Your task to perform on an android device: toggle javascript in the chrome app Image 0: 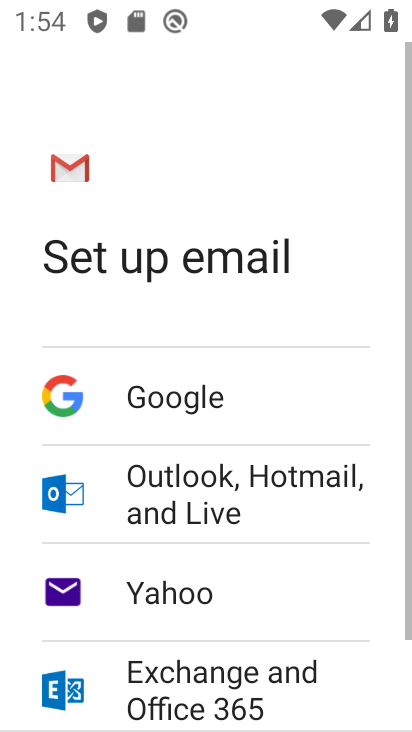
Step 0: press back button
Your task to perform on an android device: toggle javascript in the chrome app Image 1: 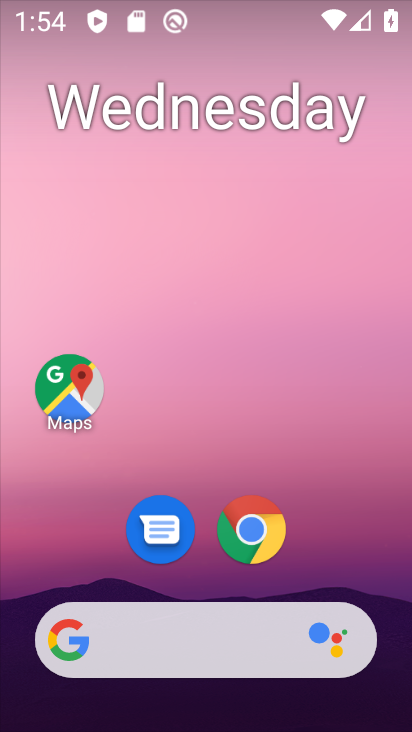
Step 1: click (253, 537)
Your task to perform on an android device: toggle javascript in the chrome app Image 2: 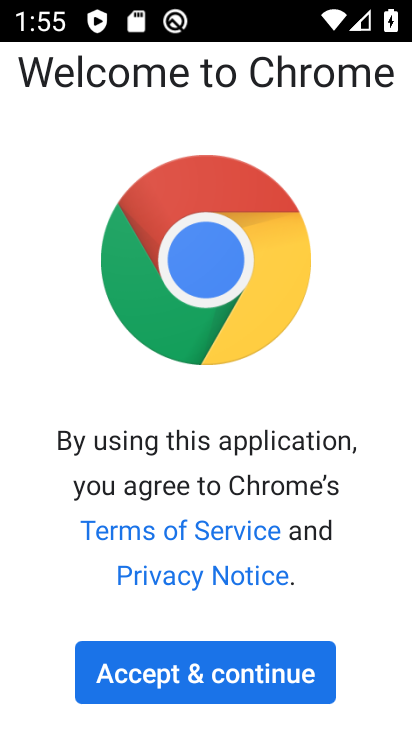
Step 2: click (270, 670)
Your task to perform on an android device: toggle javascript in the chrome app Image 3: 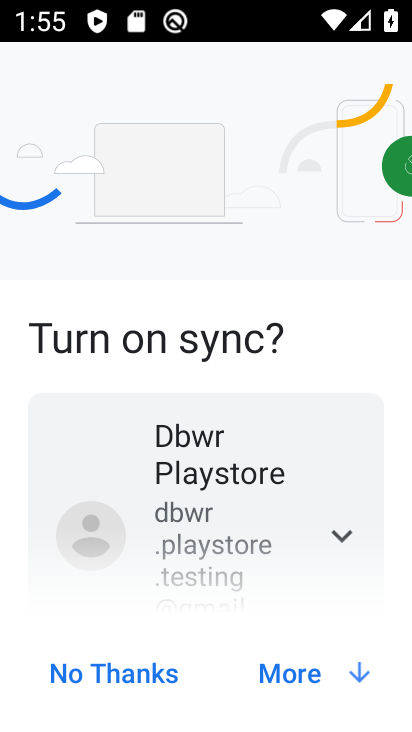
Step 3: click (321, 662)
Your task to perform on an android device: toggle javascript in the chrome app Image 4: 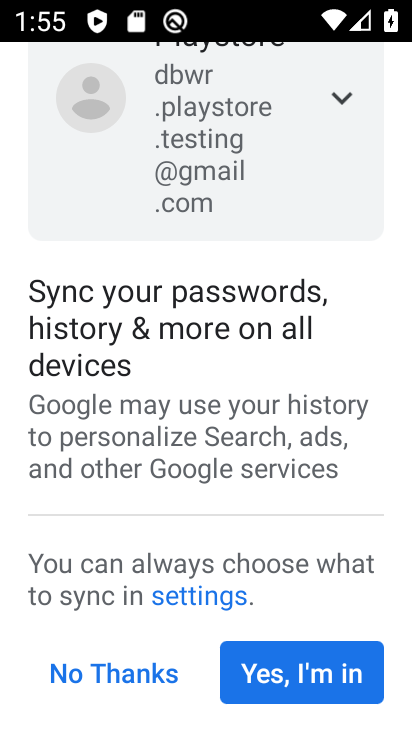
Step 4: click (301, 678)
Your task to perform on an android device: toggle javascript in the chrome app Image 5: 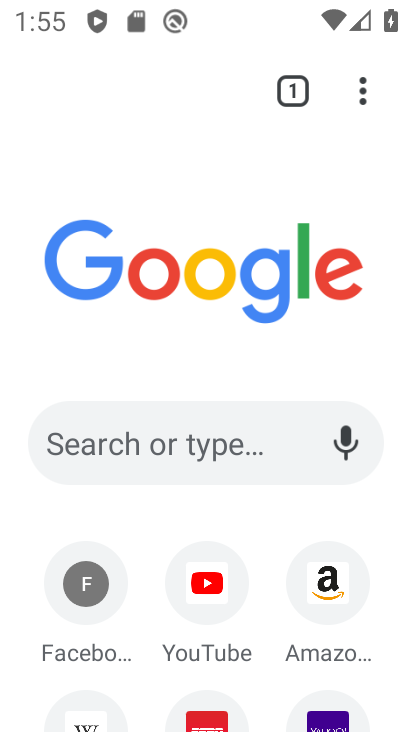
Step 5: drag from (362, 106) to (90, 550)
Your task to perform on an android device: toggle javascript in the chrome app Image 6: 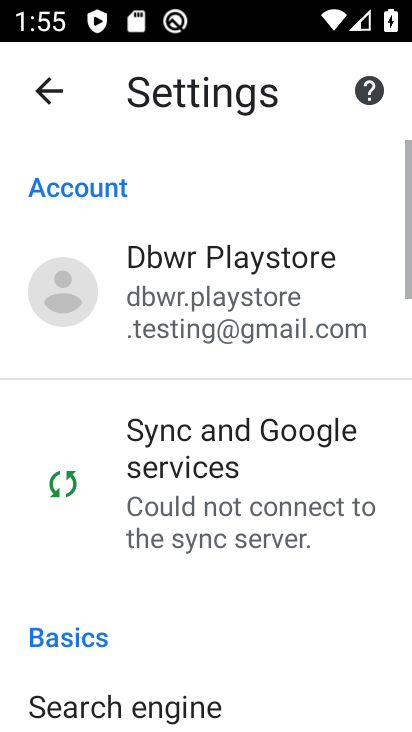
Step 6: drag from (213, 628) to (235, 33)
Your task to perform on an android device: toggle javascript in the chrome app Image 7: 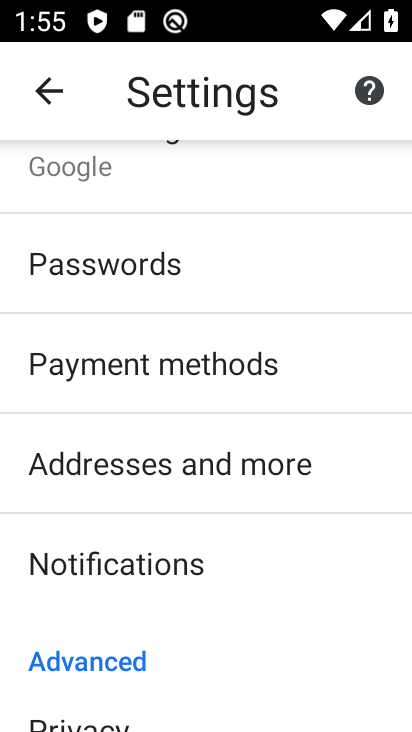
Step 7: drag from (175, 667) to (264, 70)
Your task to perform on an android device: toggle javascript in the chrome app Image 8: 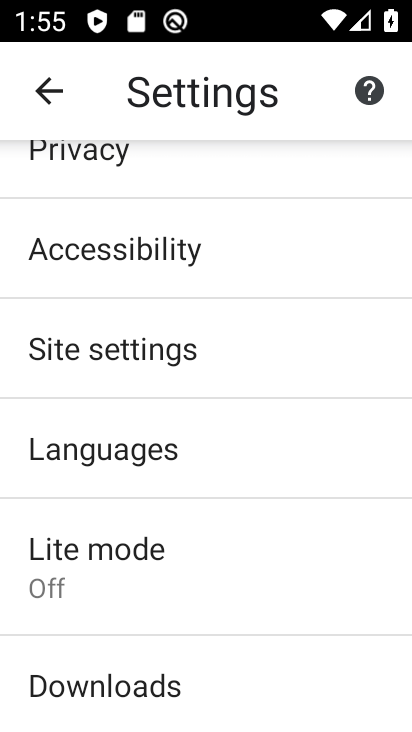
Step 8: click (127, 355)
Your task to perform on an android device: toggle javascript in the chrome app Image 9: 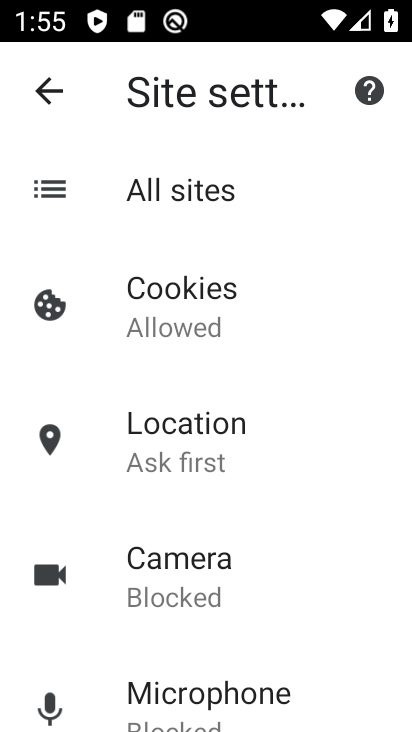
Step 9: drag from (199, 671) to (256, 89)
Your task to perform on an android device: toggle javascript in the chrome app Image 10: 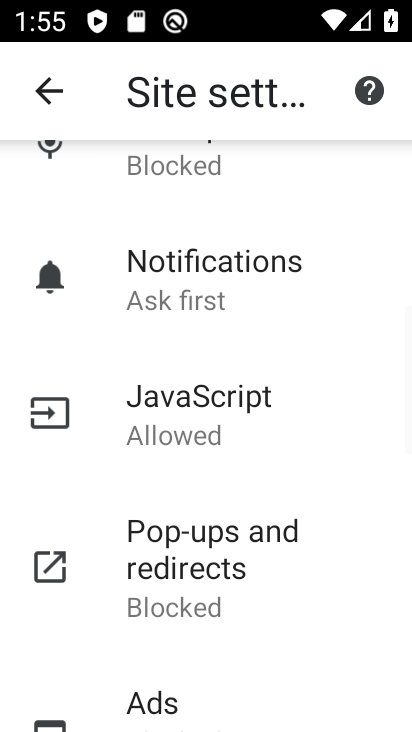
Step 10: click (203, 398)
Your task to perform on an android device: toggle javascript in the chrome app Image 11: 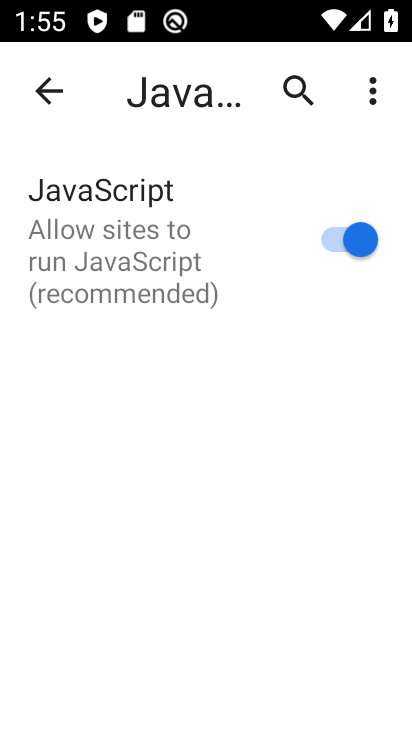
Step 11: click (345, 234)
Your task to perform on an android device: toggle javascript in the chrome app Image 12: 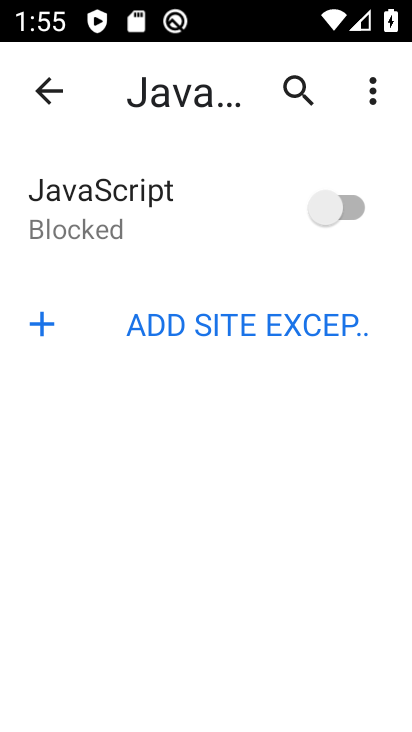
Step 12: task complete